Your task to perform on an android device: toggle improve location accuracy Image 0: 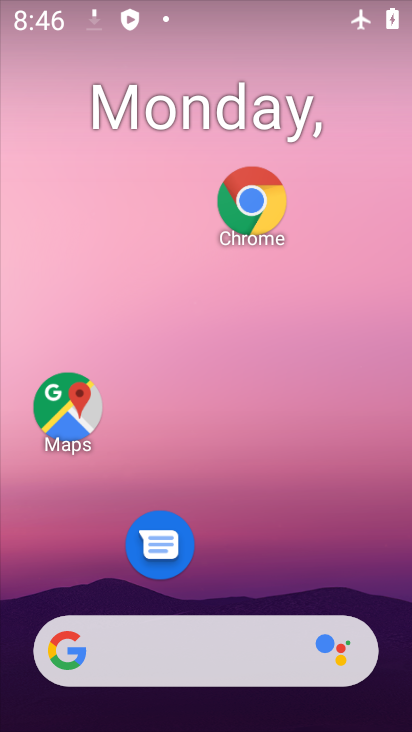
Step 0: drag from (235, 543) to (215, 146)
Your task to perform on an android device: toggle improve location accuracy Image 1: 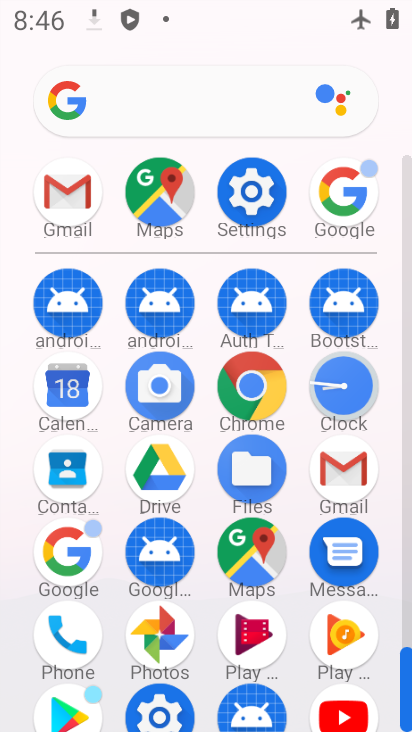
Step 1: click (263, 204)
Your task to perform on an android device: toggle improve location accuracy Image 2: 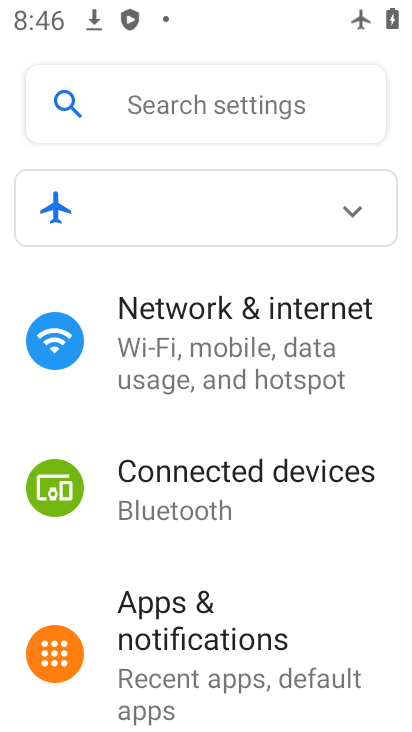
Step 2: drag from (288, 592) to (266, 264)
Your task to perform on an android device: toggle improve location accuracy Image 3: 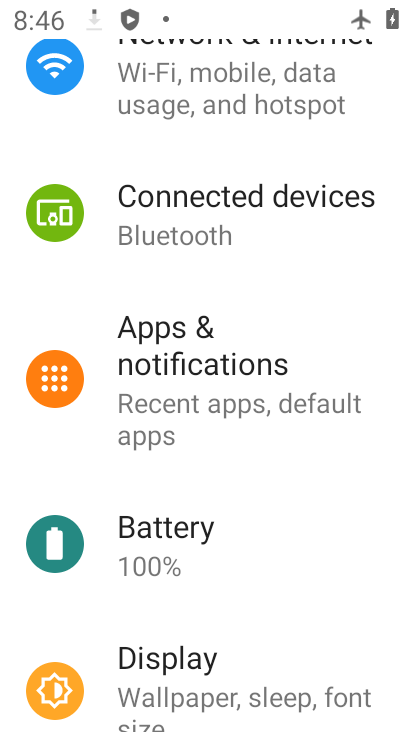
Step 3: drag from (253, 557) to (230, 274)
Your task to perform on an android device: toggle improve location accuracy Image 4: 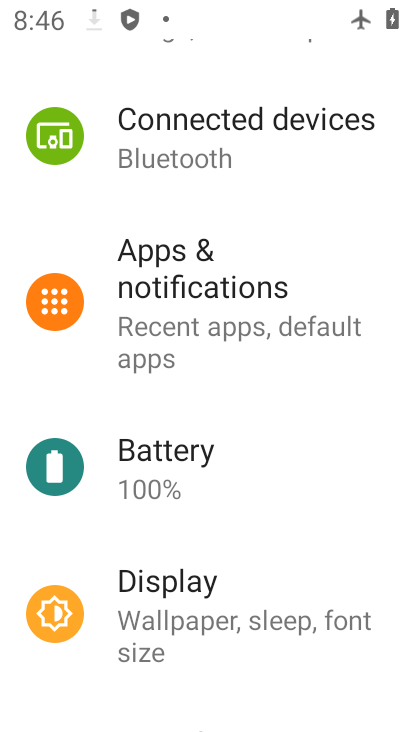
Step 4: drag from (228, 526) to (215, 295)
Your task to perform on an android device: toggle improve location accuracy Image 5: 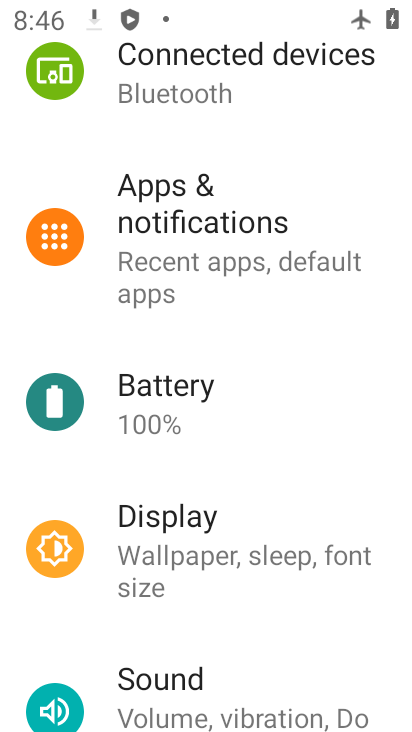
Step 5: drag from (221, 633) to (228, 352)
Your task to perform on an android device: toggle improve location accuracy Image 6: 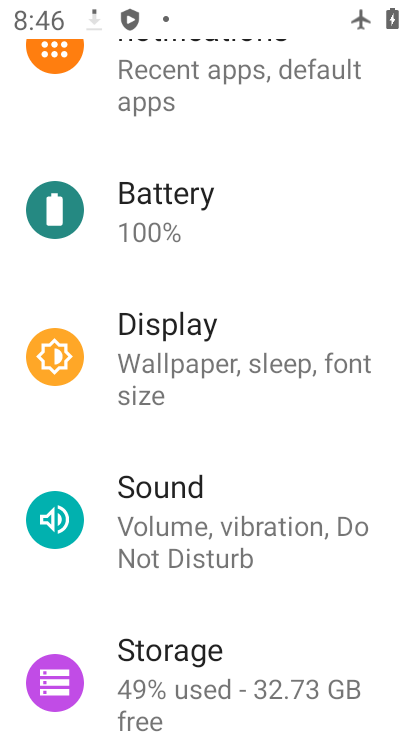
Step 6: drag from (238, 608) to (231, 340)
Your task to perform on an android device: toggle improve location accuracy Image 7: 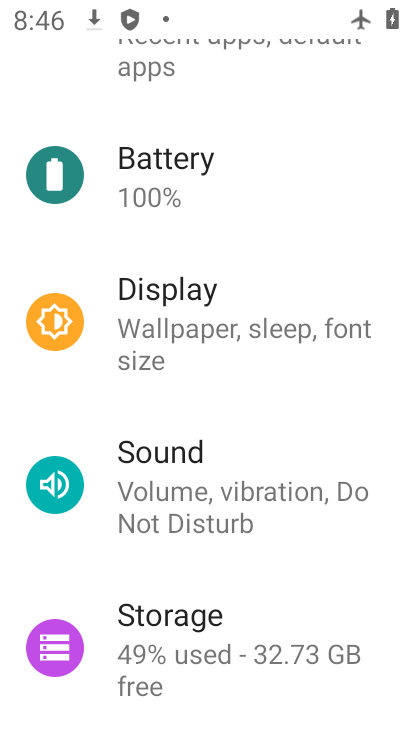
Step 7: drag from (251, 628) to (218, 245)
Your task to perform on an android device: toggle improve location accuracy Image 8: 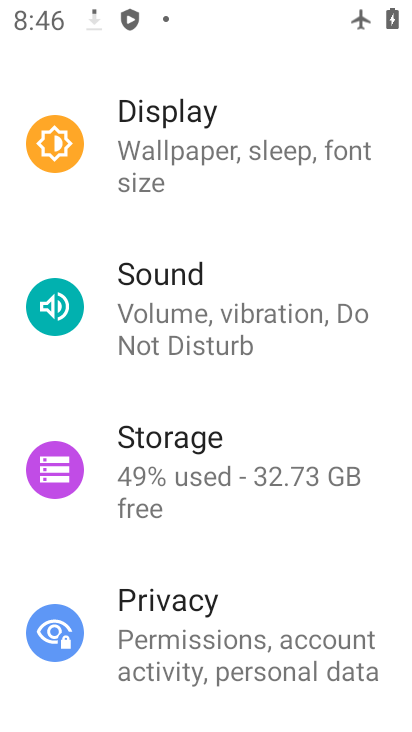
Step 8: drag from (204, 538) to (203, 250)
Your task to perform on an android device: toggle improve location accuracy Image 9: 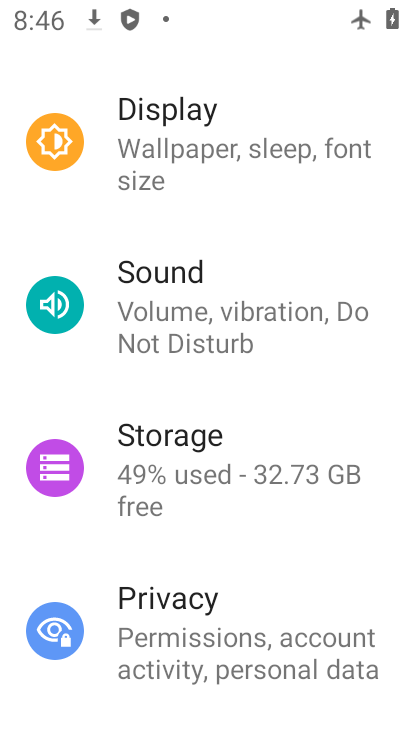
Step 9: drag from (216, 466) to (208, 223)
Your task to perform on an android device: toggle improve location accuracy Image 10: 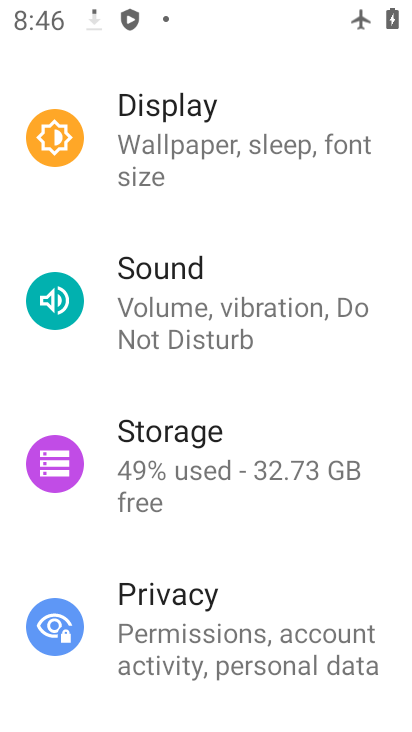
Step 10: drag from (256, 481) to (264, 166)
Your task to perform on an android device: toggle improve location accuracy Image 11: 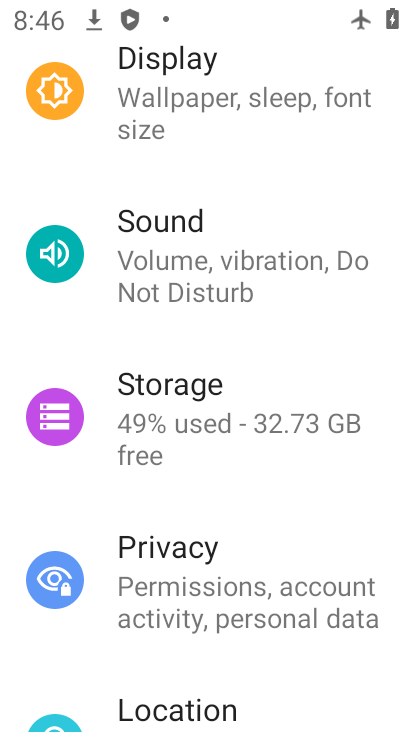
Step 11: click (217, 701)
Your task to perform on an android device: toggle improve location accuracy Image 12: 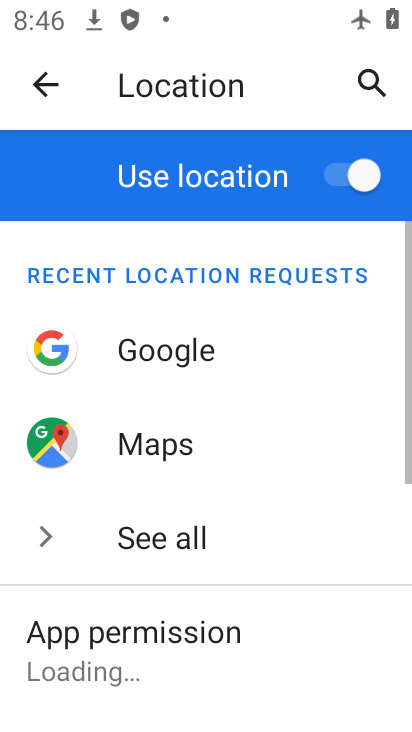
Step 12: drag from (282, 616) to (282, 186)
Your task to perform on an android device: toggle improve location accuracy Image 13: 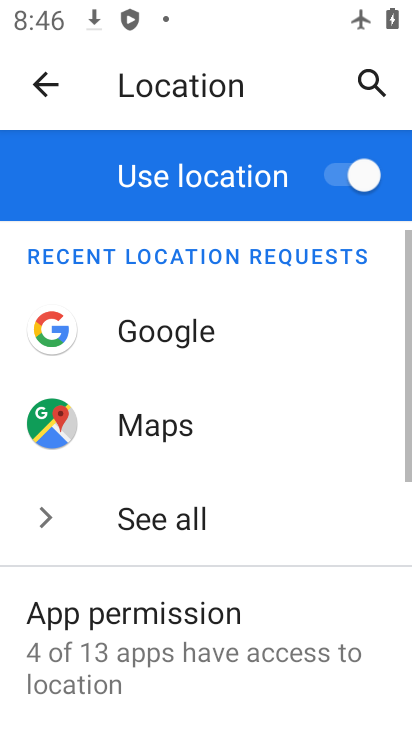
Step 13: drag from (280, 574) to (280, 128)
Your task to perform on an android device: toggle improve location accuracy Image 14: 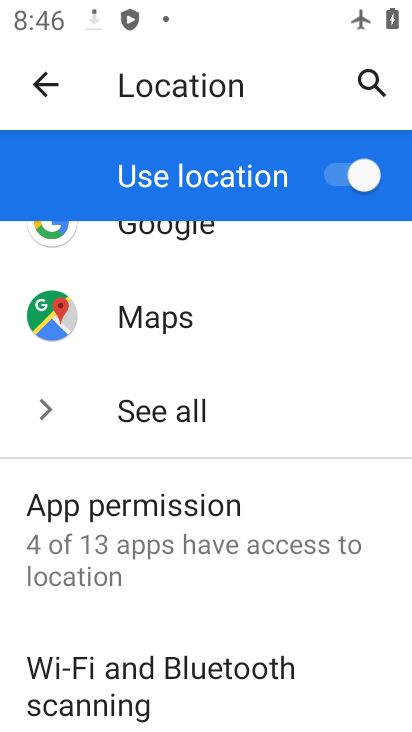
Step 14: drag from (218, 617) to (225, 223)
Your task to perform on an android device: toggle improve location accuracy Image 15: 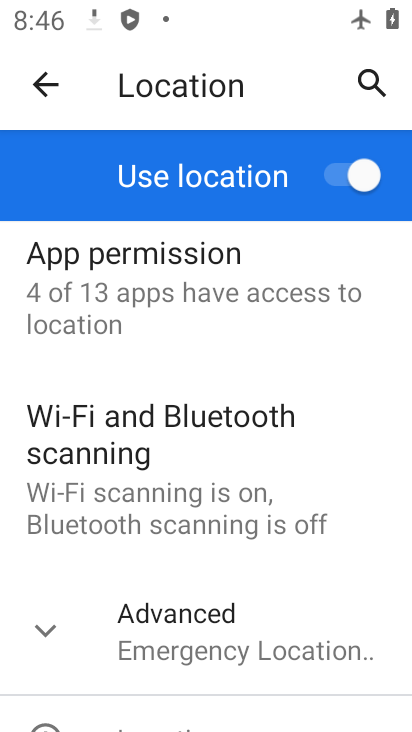
Step 15: drag from (269, 605) to (296, 396)
Your task to perform on an android device: toggle improve location accuracy Image 16: 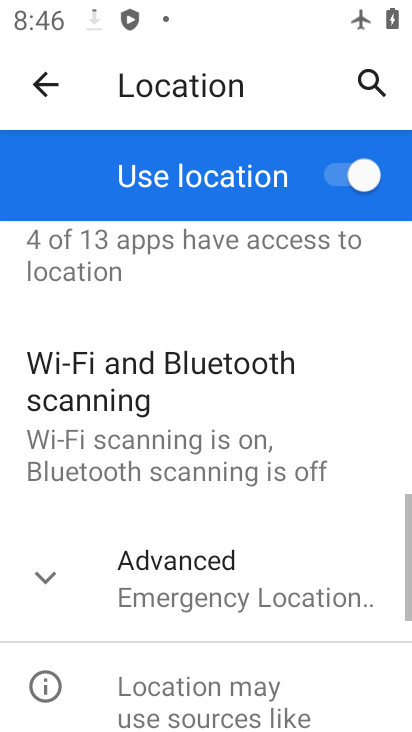
Step 16: click (215, 593)
Your task to perform on an android device: toggle improve location accuracy Image 17: 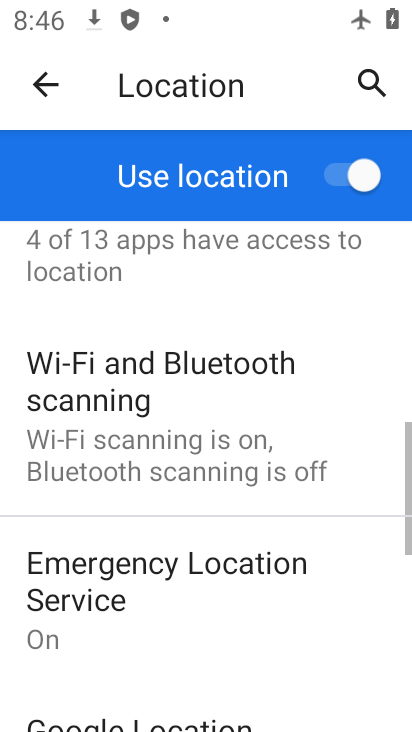
Step 17: drag from (278, 560) to (278, 267)
Your task to perform on an android device: toggle improve location accuracy Image 18: 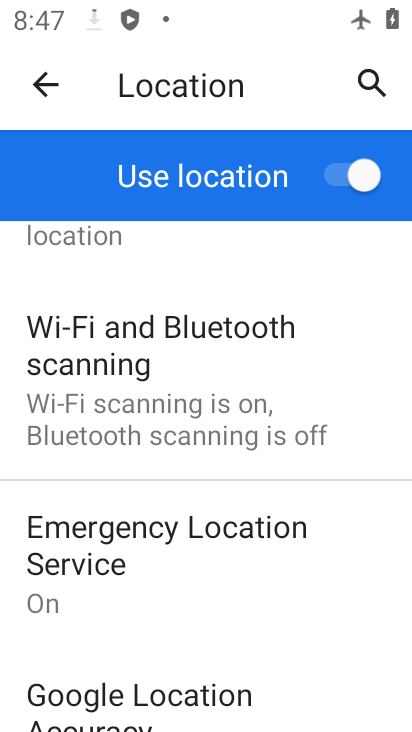
Step 18: drag from (273, 645) to (285, 356)
Your task to perform on an android device: toggle improve location accuracy Image 19: 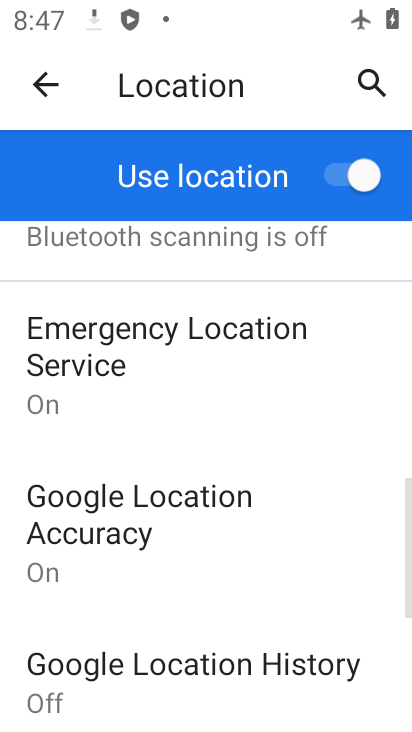
Step 19: click (187, 516)
Your task to perform on an android device: toggle improve location accuracy Image 20: 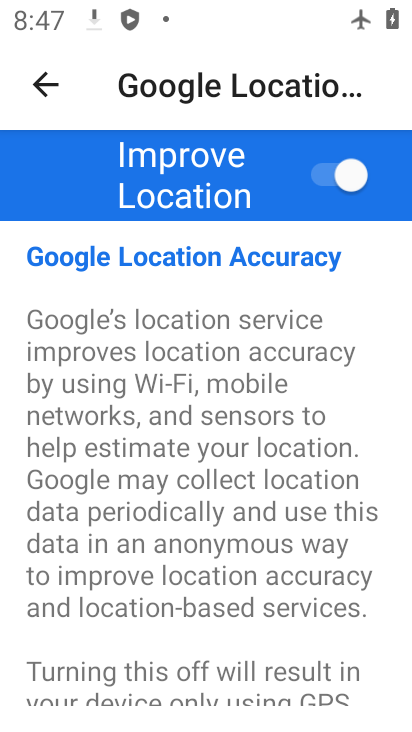
Step 20: click (326, 160)
Your task to perform on an android device: toggle improve location accuracy Image 21: 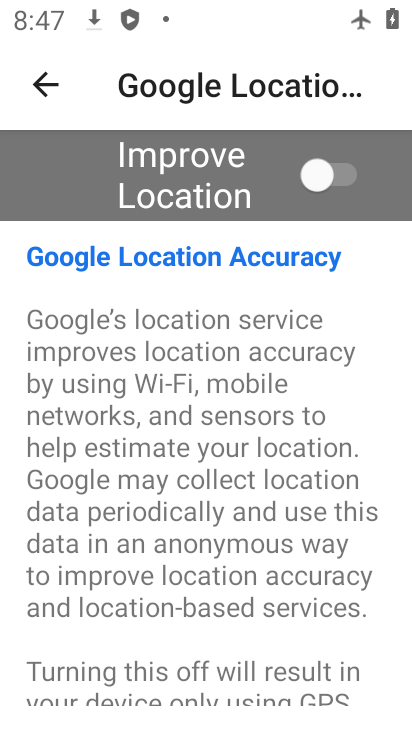
Step 21: task complete